Your task to perform on an android device: Turn on the flashlight Image 0: 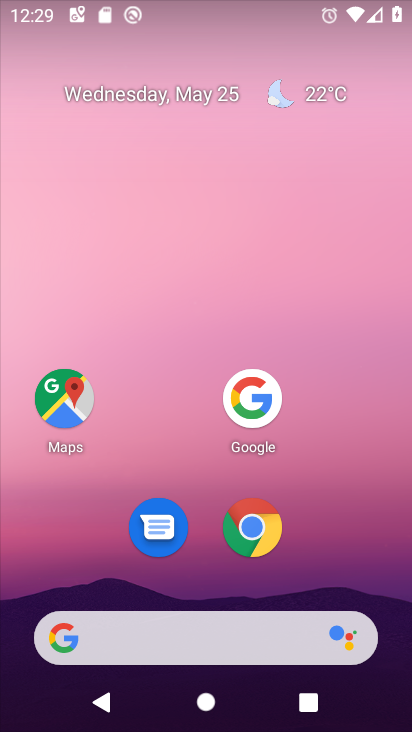
Step 0: press home button
Your task to perform on an android device: Turn on the flashlight Image 1: 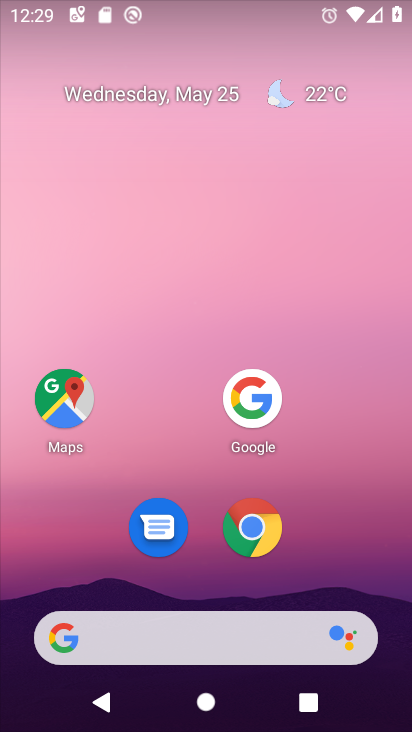
Step 1: task complete